Your task to perform on an android device: Open Maps and search for coffee Image 0: 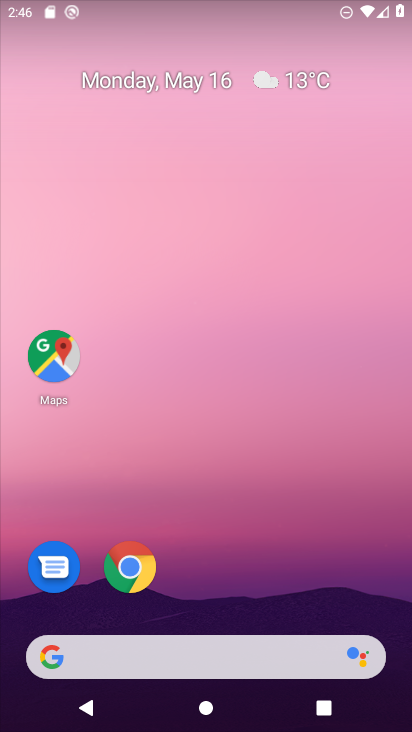
Step 0: click (48, 353)
Your task to perform on an android device: Open Maps and search for coffee Image 1: 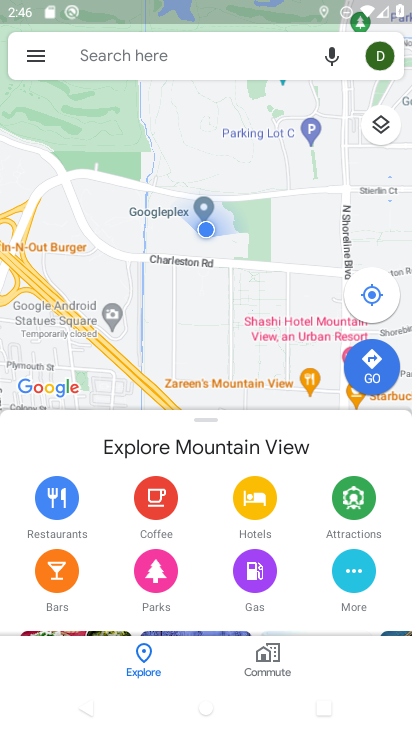
Step 1: click (200, 44)
Your task to perform on an android device: Open Maps and search for coffee Image 2: 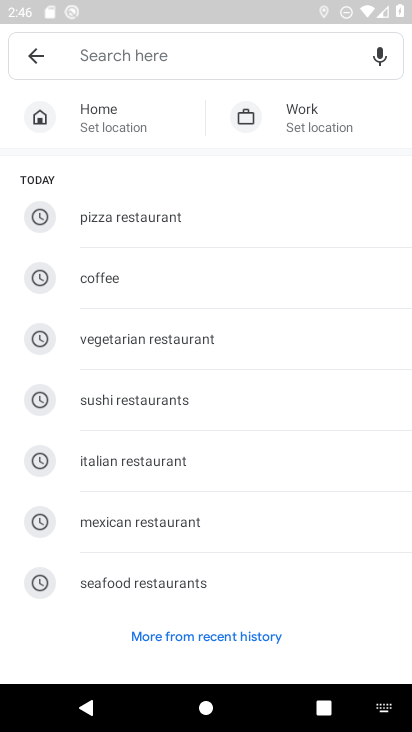
Step 2: click (153, 269)
Your task to perform on an android device: Open Maps and search for coffee Image 3: 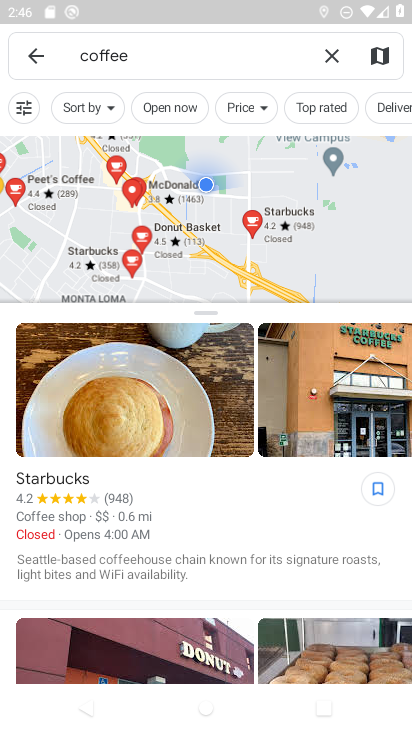
Step 3: task complete